Your task to perform on an android device: toggle wifi Image 0: 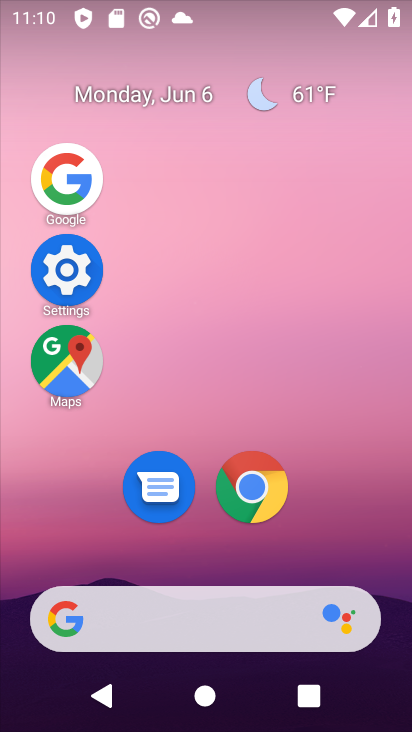
Step 0: click (41, 265)
Your task to perform on an android device: toggle wifi Image 1: 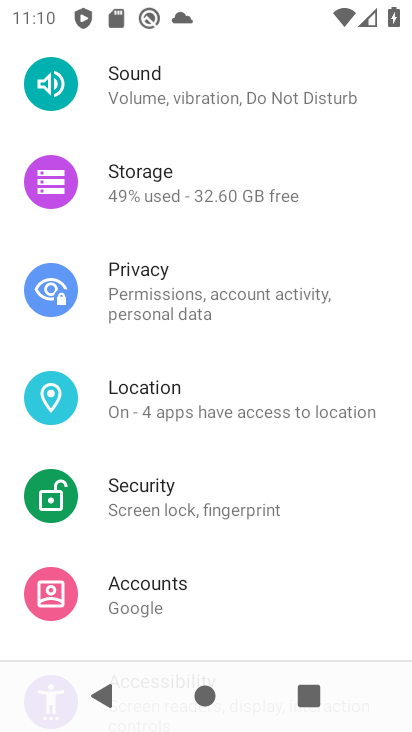
Step 1: drag from (326, 206) to (266, 505)
Your task to perform on an android device: toggle wifi Image 2: 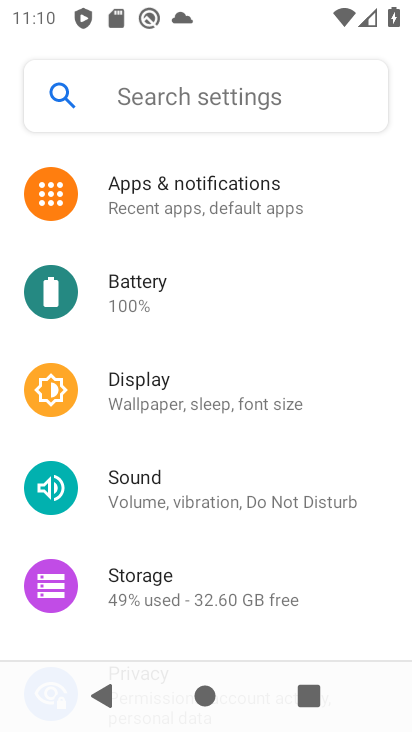
Step 2: drag from (253, 170) to (219, 557)
Your task to perform on an android device: toggle wifi Image 3: 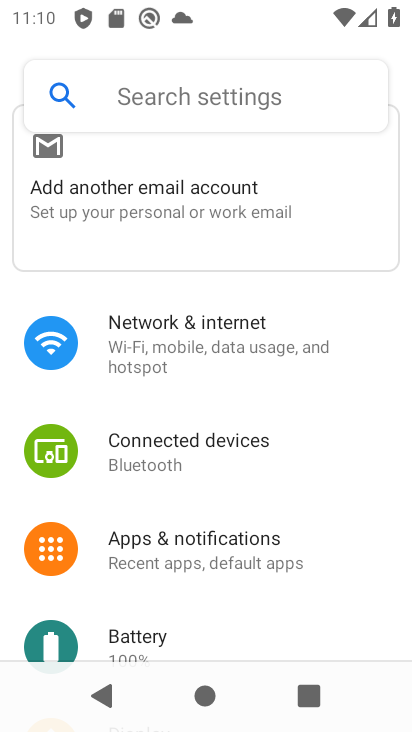
Step 3: drag from (254, 215) to (255, 437)
Your task to perform on an android device: toggle wifi Image 4: 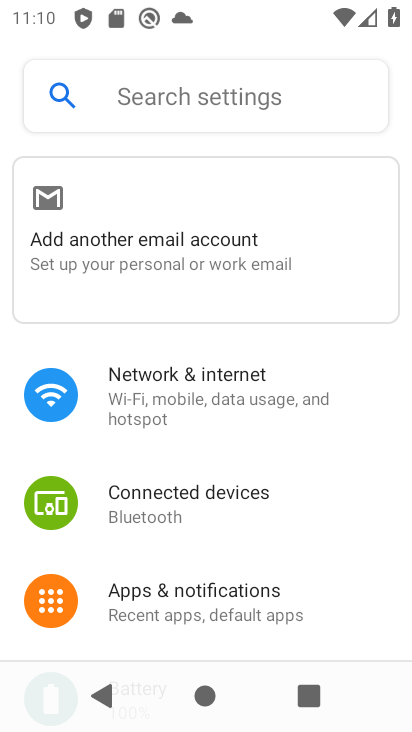
Step 4: click (229, 377)
Your task to perform on an android device: toggle wifi Image 5: 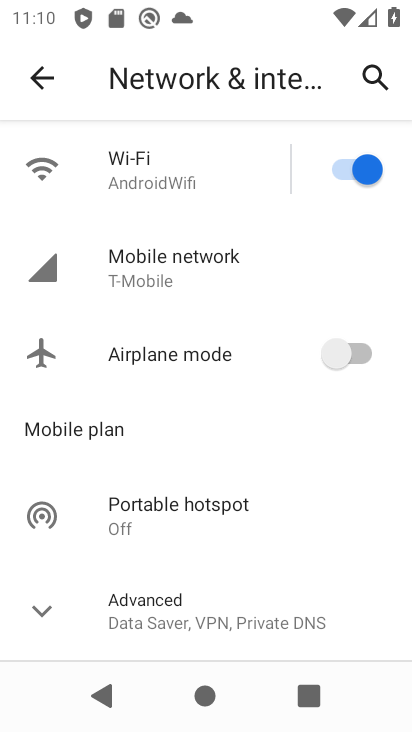
Step 5: click (368, 161)
Your task to perform on an android device: toggle wifi Image 6: 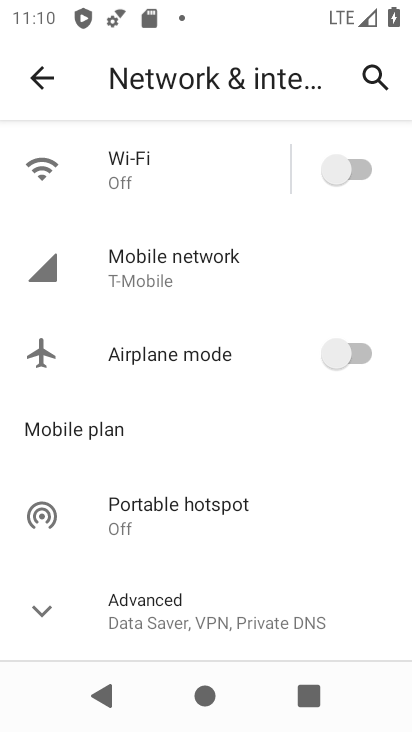
Step 6: task complete